Your task to perform on an android device: Go to network settings Image 0: 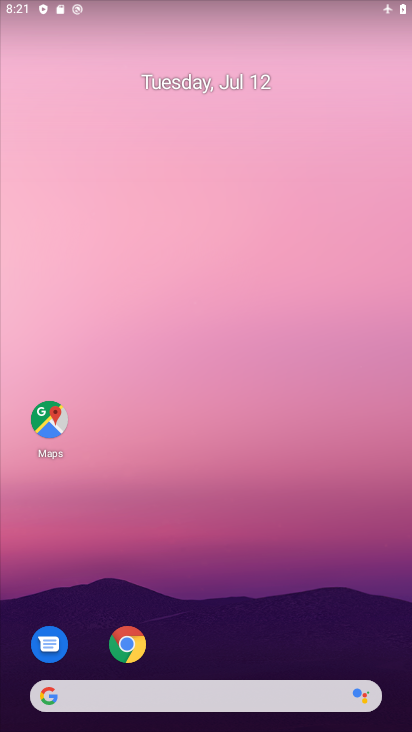
Step 0: drag from (191, 635) to (202, 101)
Your task to perform on an android device: Go to network settings Image 1: 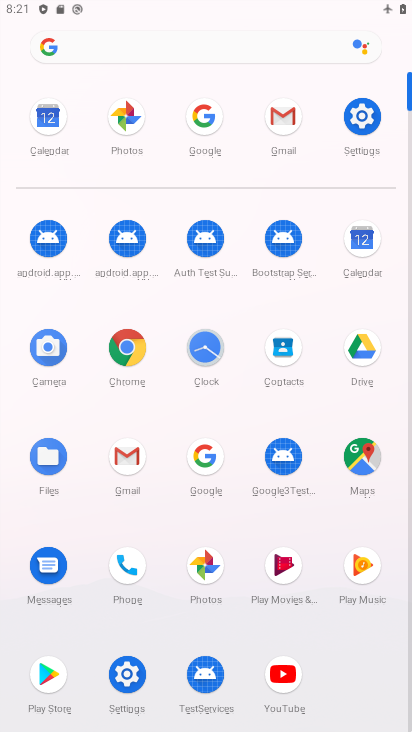
Step 1: click (343, 112)
Your task to perform on an android device: Go to network settings Image 2: 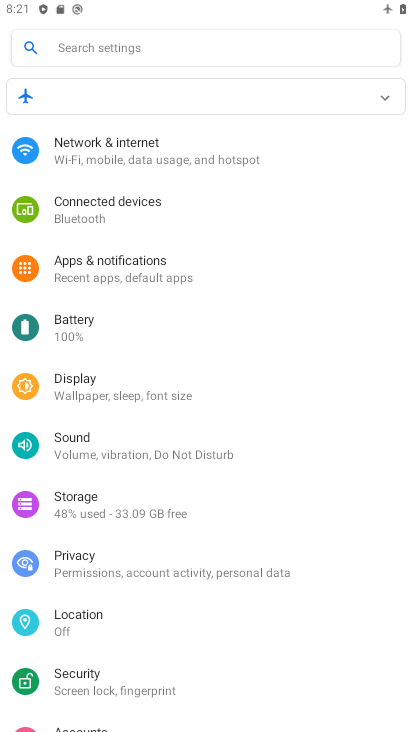
Step 2: click (108, 168)
Your task to perform on an android device: Go to network settings Image 3: 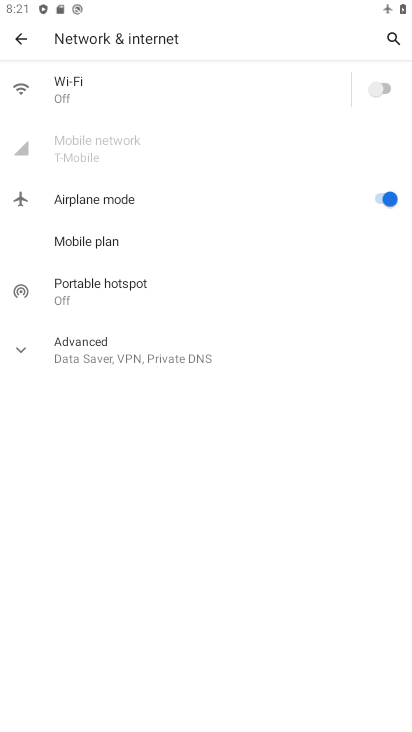
Step 3: task complete